Your task to perform on an android device: What is the news today? Image 0: 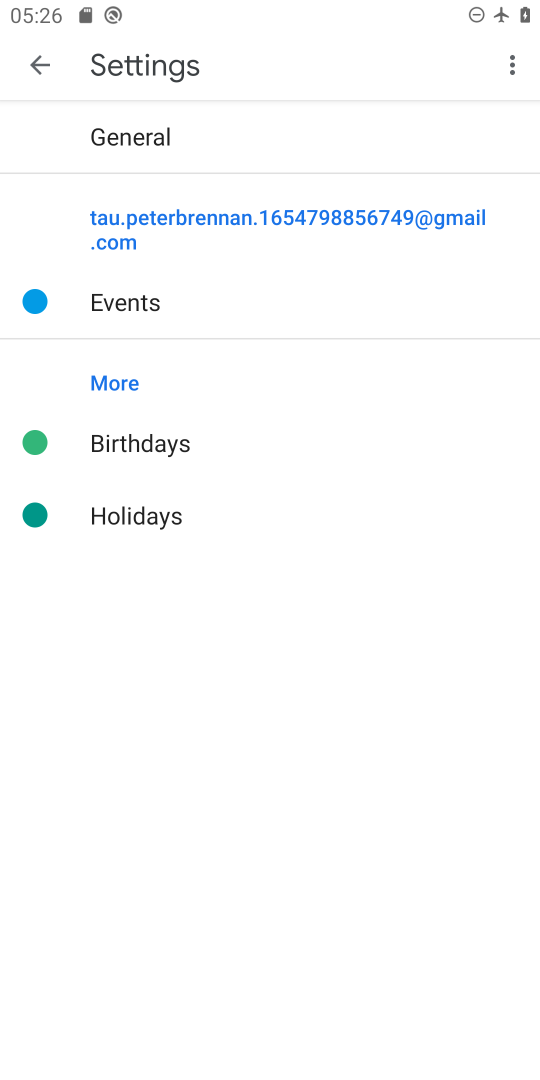
Step 0: press home button
Your task to perform on an android device: What is the news today? Image 1: 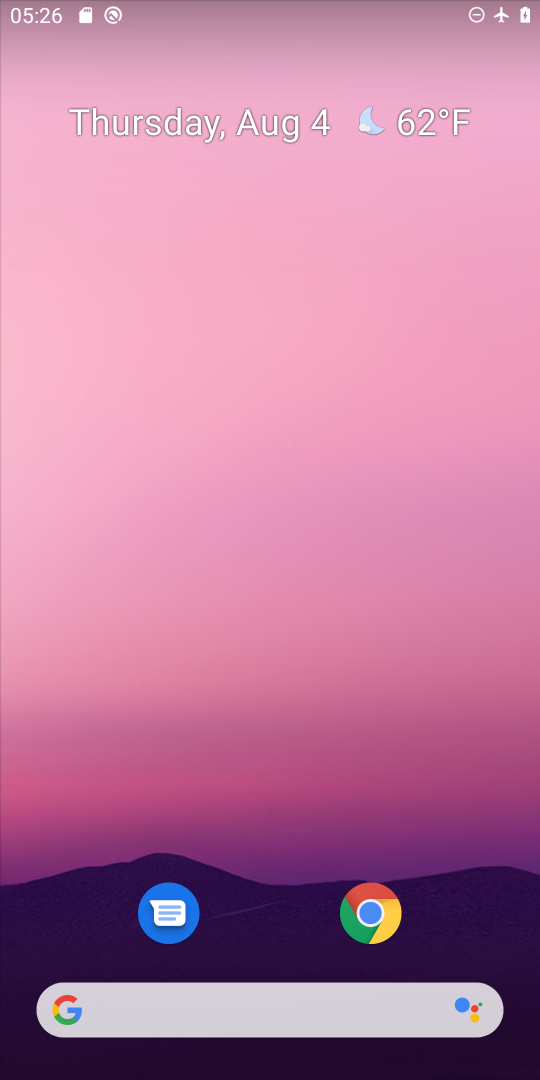
Step 1: drag from (296, 870) to (308, 88)
Your task to perform on an android device: What is the news today? Image 2: 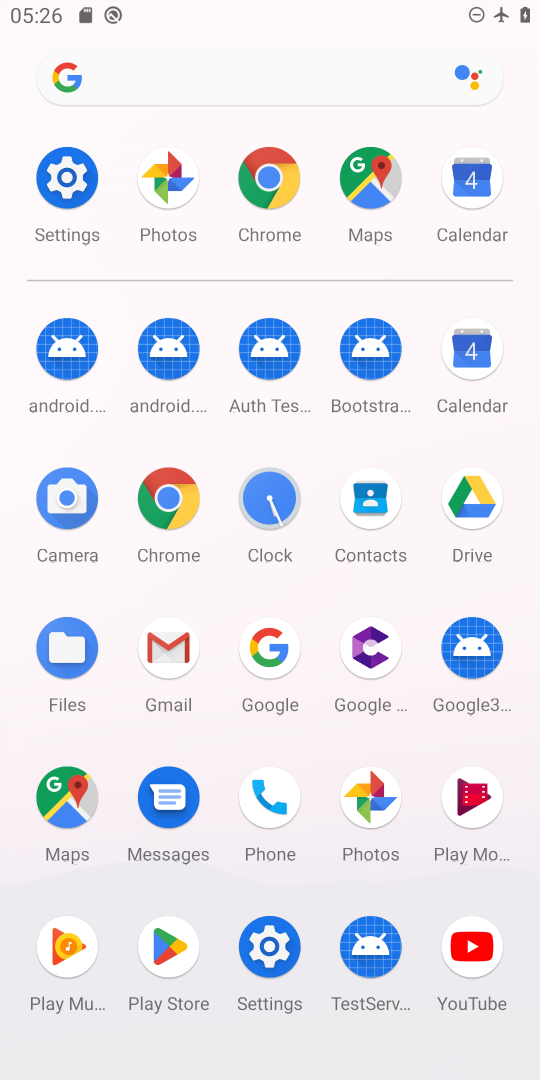
Step 2: click (162, 482)
Your task to perform on an android device: What is the news today? Image 3: 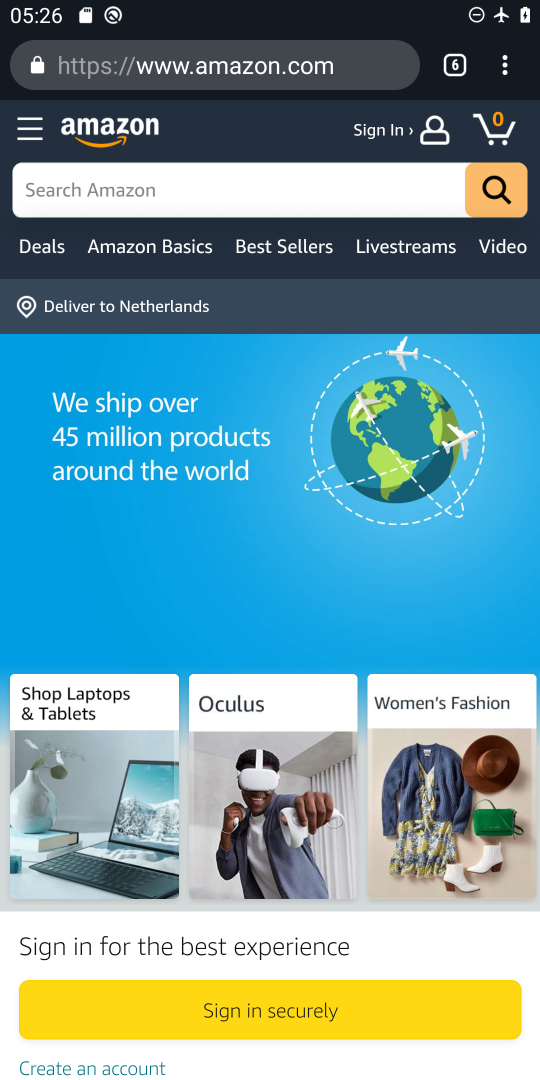
Step 3: click (341, 73)
Your task to perform on an android device: What is the news today? Image 4: 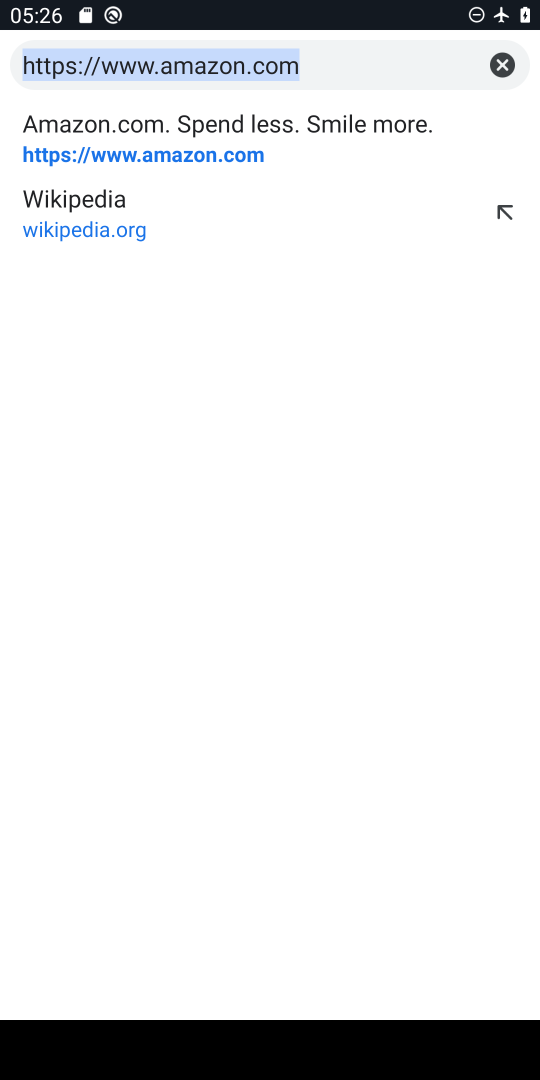
Step 4: type "whats the news today"
Your task to perform on an android device: What is the news today? Image 5: 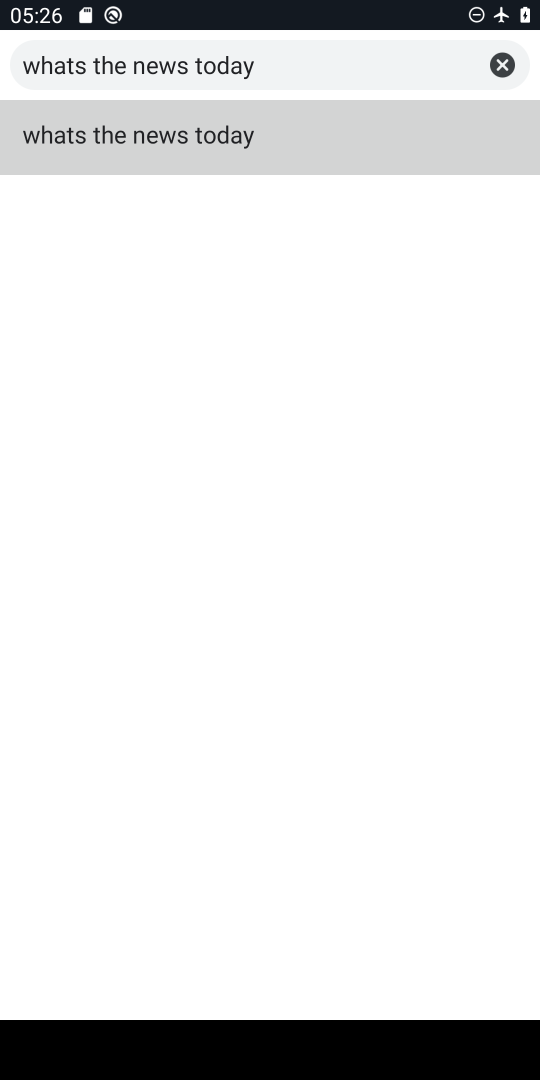
Step 5: click (357, 139)
Your task to perform on an android device: What is the news today? Image 6: 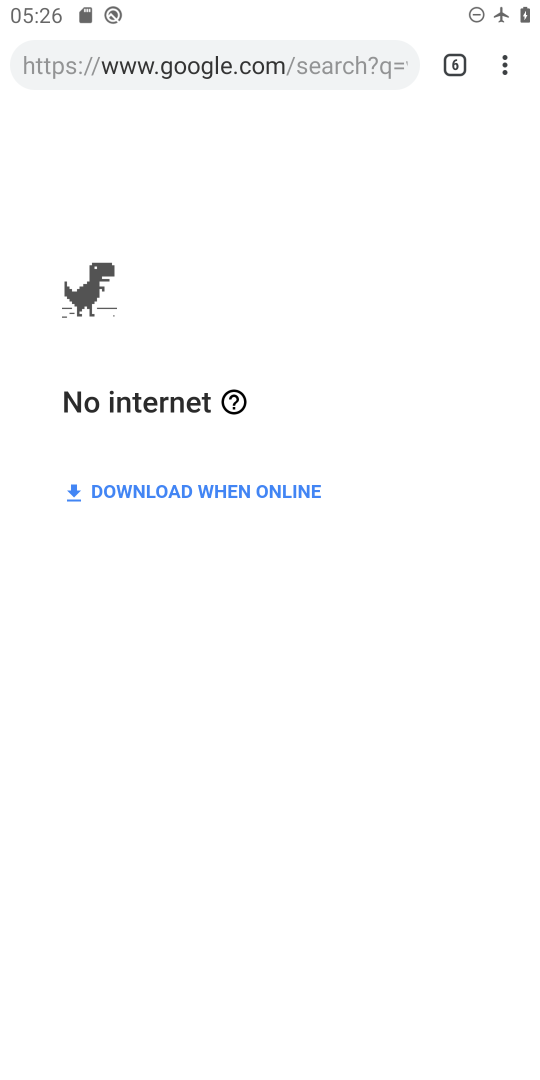
Step 6: task complete